Your task to perform on an android device: Open Google Maps and go to "Timeline" Image 0: 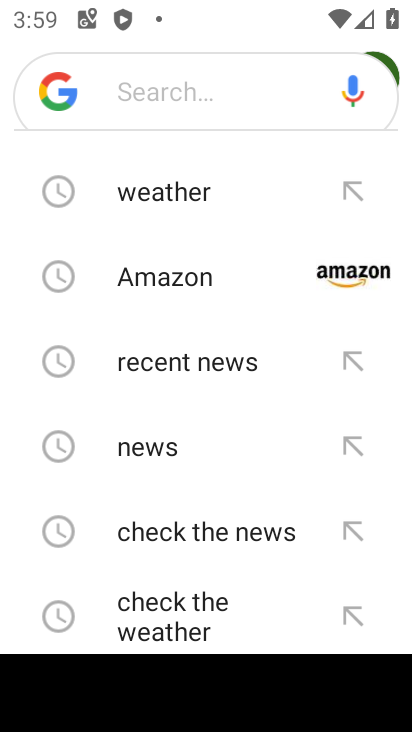
Step 0: press home button
Your task to perform on an android device: Open Google Maps and go to "Timeline" Image 1: 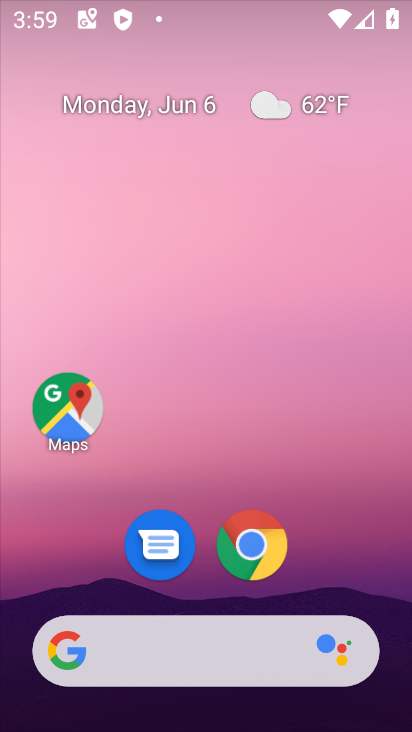
Step 1: drag from (250, 725) to (248, 163)
Your task to perform on an android device: Open Google Maps and go to "Timeline" Image 2: 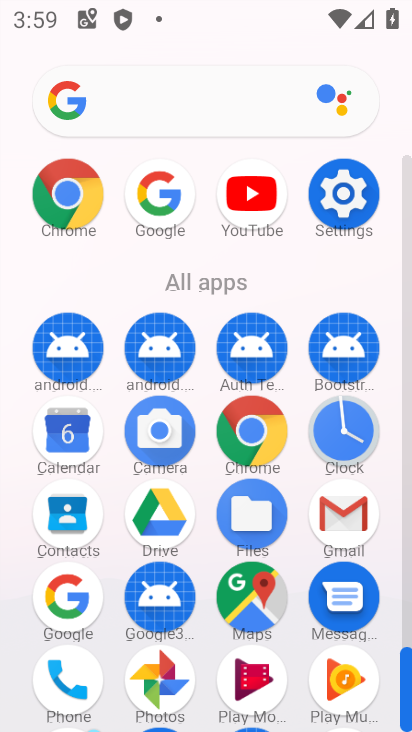
Step 2: click (247, 595)
Your task to perform on an android device: Open Google Maps and go to "Timeline" Image 3: 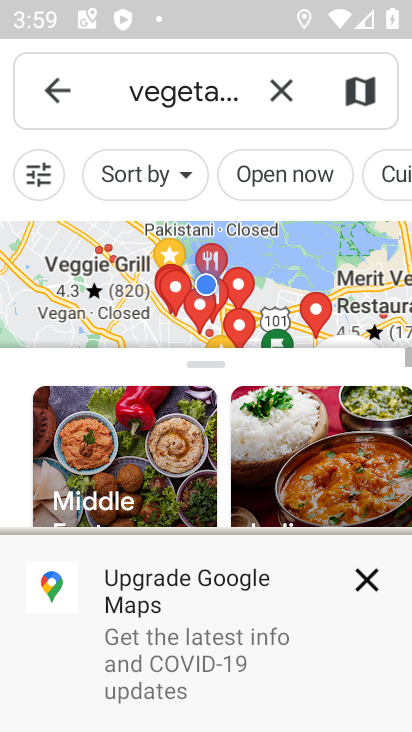
Step 3: click (55, 88)
Your task to perform on an android device: Open Google Maps and go to "Timeline" Image 4: 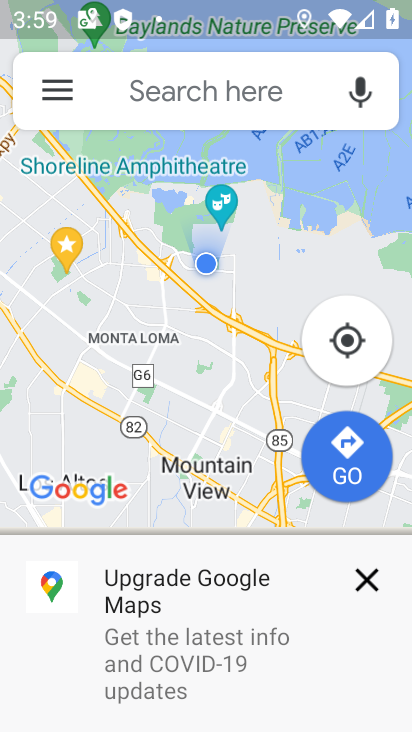
Step 4: click (55, 88)
Your task to perform on an android device: Open Google Maps and go to "Timeline" Image 5: 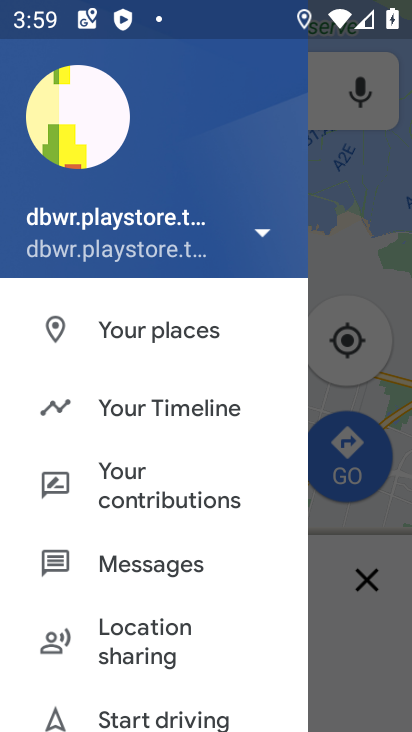
Step 5: click (180, 406)
Your task to perform on an android device: Open Google Maps and go to "Timeline" Image 6: 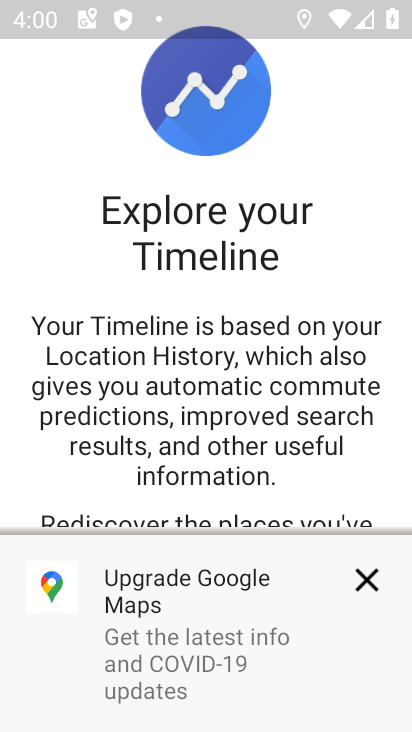
Step 6: click (366, 575)
Your task to perform on an android device: Open Google Maps and go to "Timeline" Image 7: 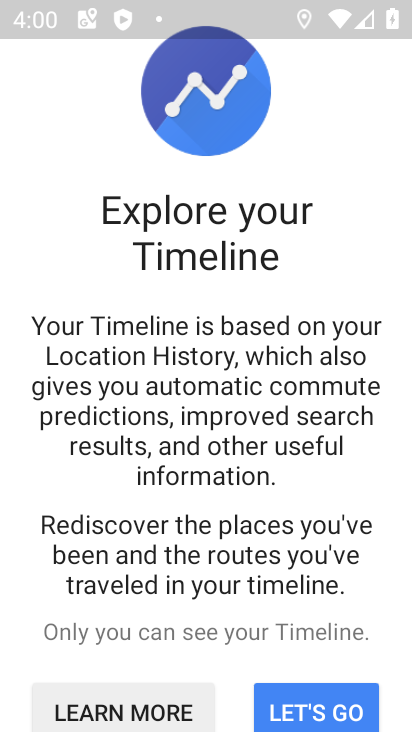
Step 7: click (297, 707)
Your task to perform on an android device: Open Google Maps and go to "Timeline" Image 8: 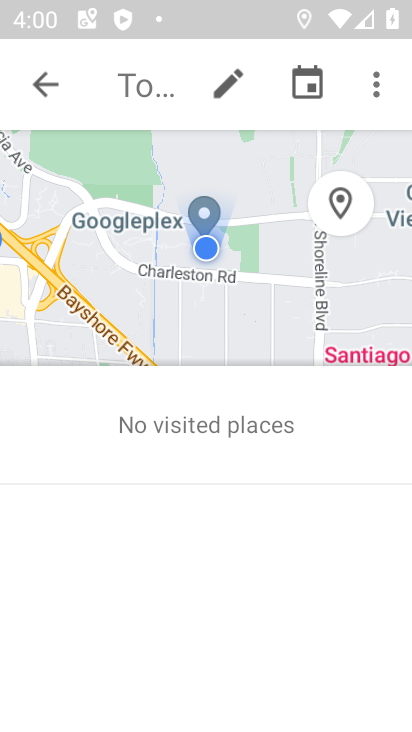
Step 8: task complete